Your task to perform on an android device: What is the recent news? Image 0: 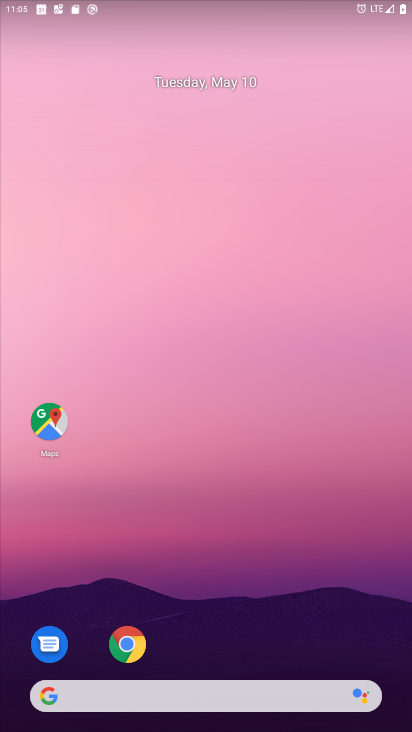
Step 0: drag from (168, 591) to (181, 177)
Your task to perform on an android device: What is the recent news? Image 1: 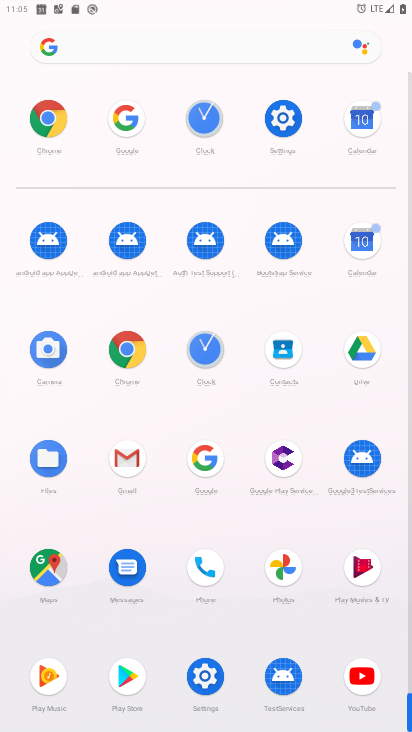
Step 1: click (199, 486)
Your task to perform on an android device: What is the recent news? Image 2: 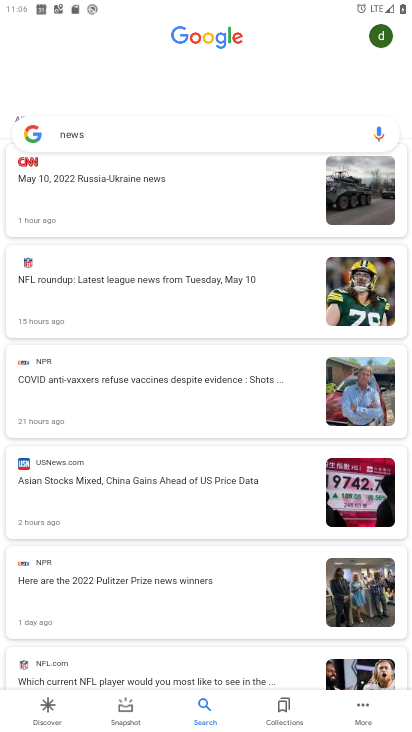
Step 2: task complete